Your task to perform on an android device: see tabs open on other devices in the chrome app Image 0: 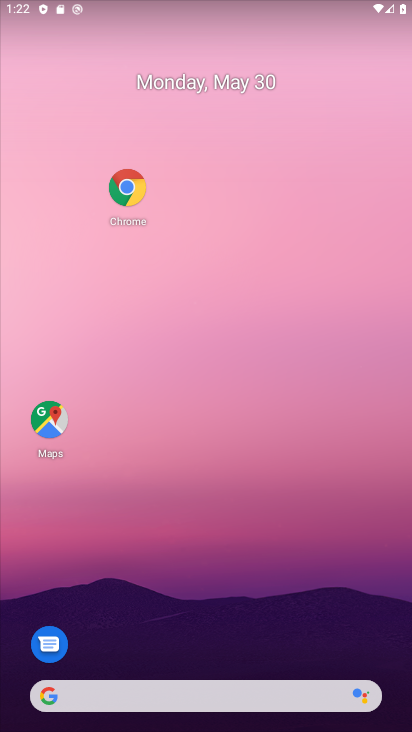
Step 0: click (127, 189)
Your task to perform on an android device: see tabs open on other devices in the chrome app Image 1: 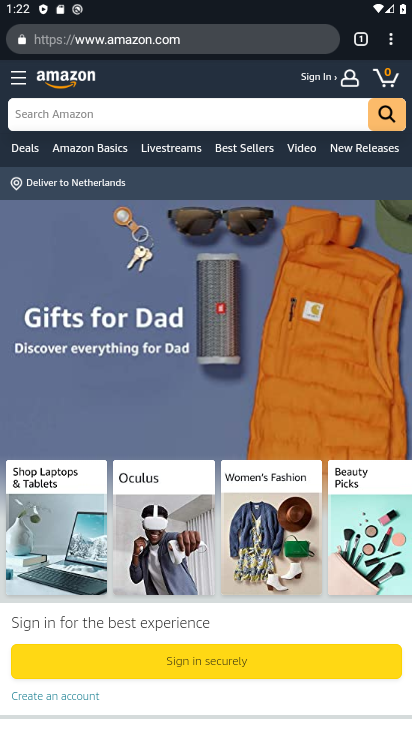
Step 1: click (406, 33)
Your task to perform on an android device: see tabs open on other devices in the chrome app Image 2: 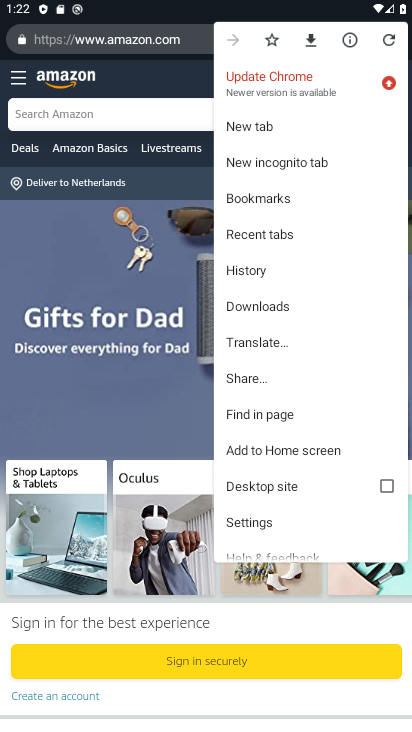
Step 2: click (303, 121)
Your task to perform on an android device: see tabs open on other devices in the chrome app Image 3: 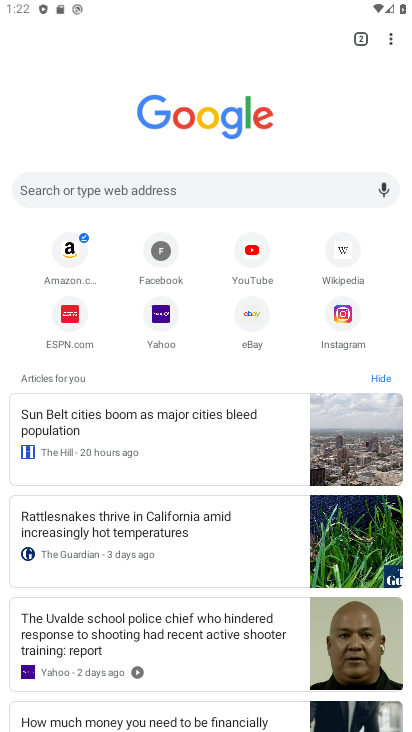
Step 3: click (386, 42)
Your task to perform on an android device: see tabs open on other devices in the chrome app Image 4: 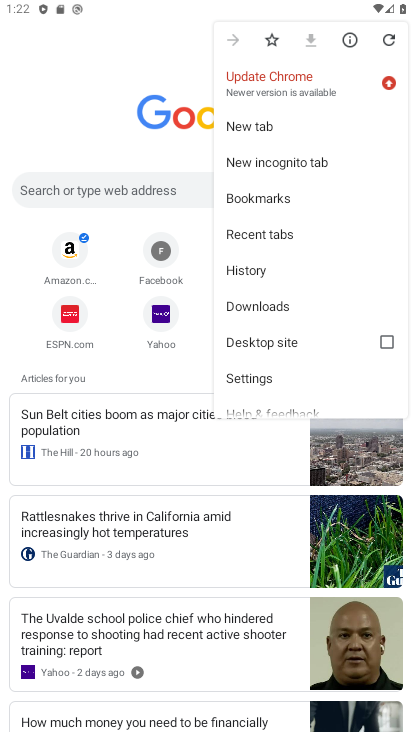
Step 4: click (257, 223)
Your task to perform on an android device: see tabs open on other devices in the chrome app Image 5: 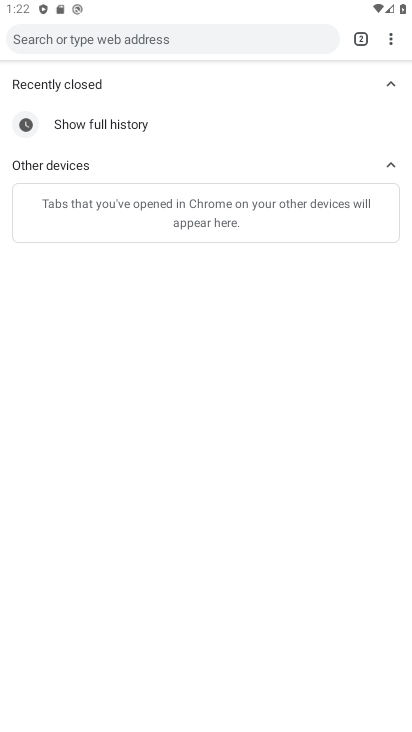
Step 5: task complete